Your task to perform on an android device: Open the calendar app, open the side menu, and click the "Day" option Image 0: 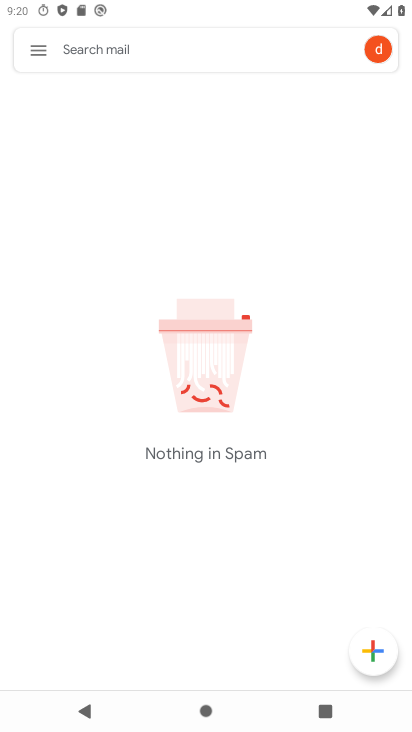
Step 0: press home button
Your task to perform on an android device: Open the calendar app, open the side menu, and click the "Day" option Image 1: 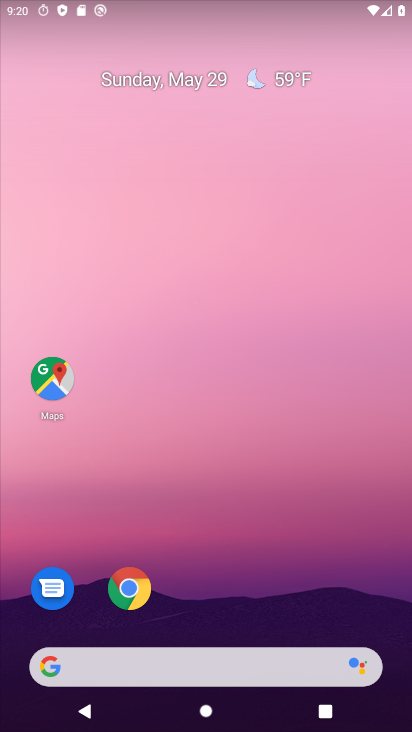
Step 1: drag from (207, 603) to (284, 0)
Your task to perform on an android device: Open the calendar app, open the side menu, and click the "Day" option Image 2: 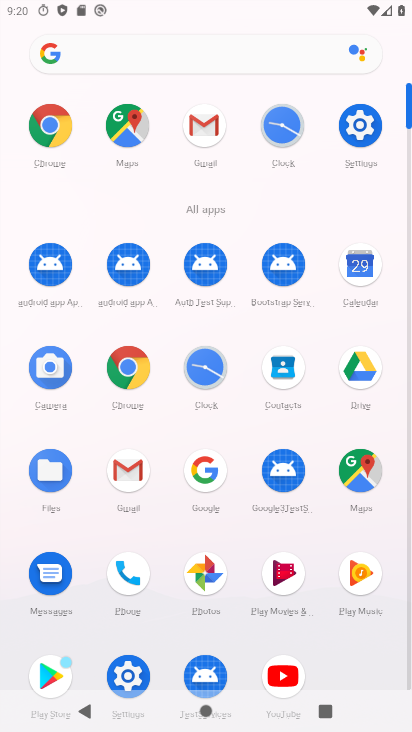
Step 2: click (369, 280)
Your task to perform on an android device: Open the calendar app, open the side menu, and click the "Day" option Image 3: 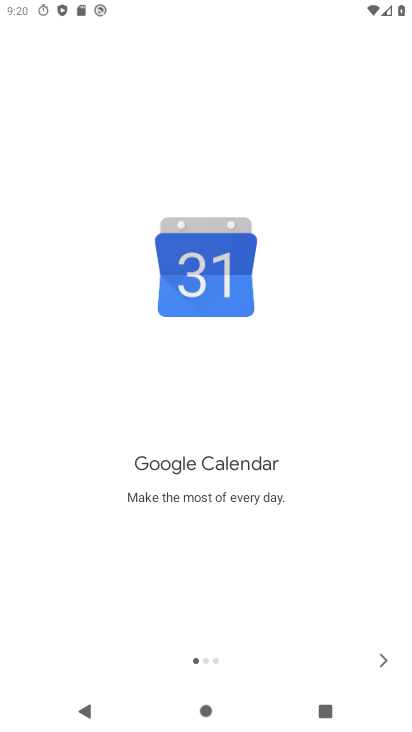
Step 3: click (380, 657)
Your task to perform on an android device: Open the calendar app, open the side menu, and click the "Day" option Image 4: 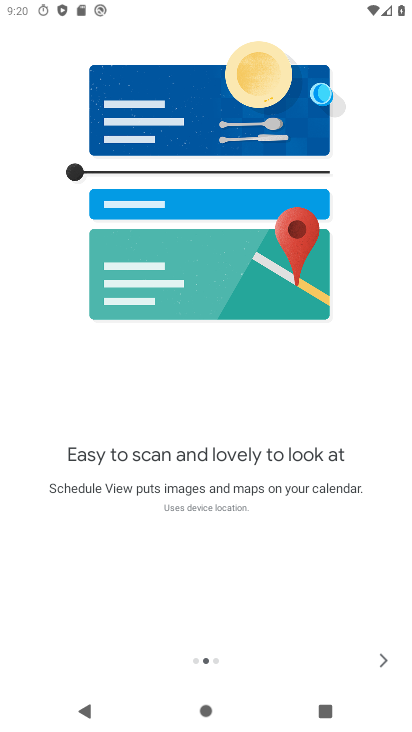
Step 4: click (380, 657)
Your task to perform on an android device: Open the calendar app, open the side menu, and click the "Day" option Image 5: 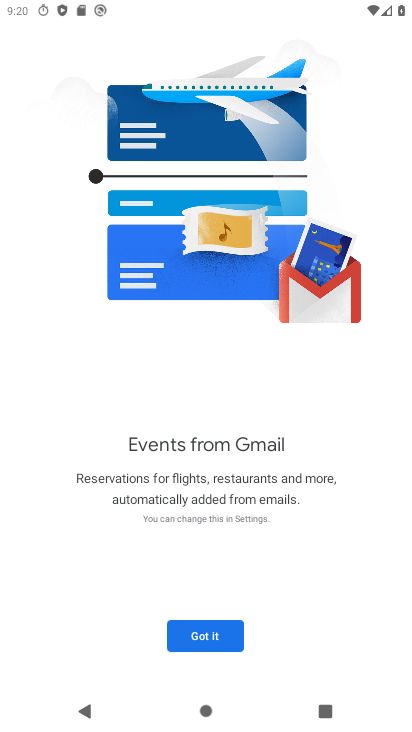
Step 5: click (220, 636)
Your task to perform on an android device: Open the calendar app, open the side menu, and click the "Day" option Image 6: 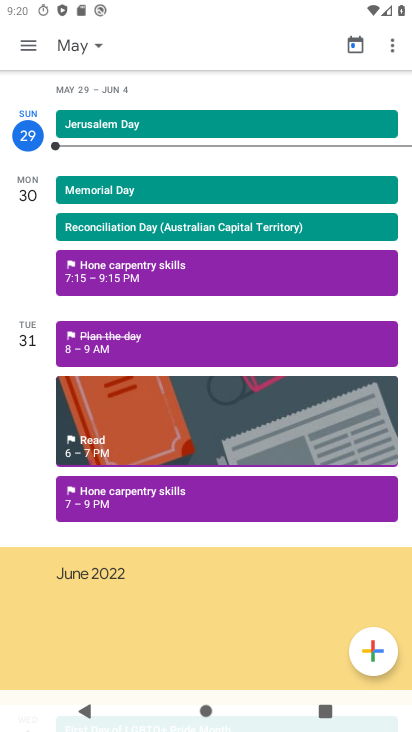
Step 6: click (26, 51)
Your task to perform on an android device: Open the calendar app, open the side menu, and click the "Day" option Image 7: 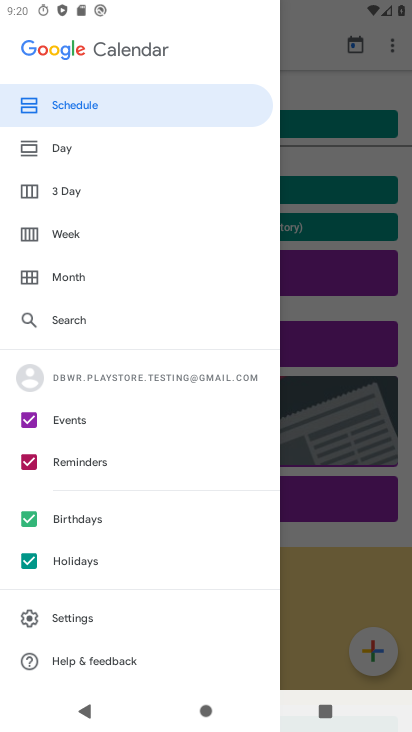
Step 7: click (76, 153)
Your task to perform on an android device: Open the calendar app, open the side menu, and click the "Day" option Image 8: 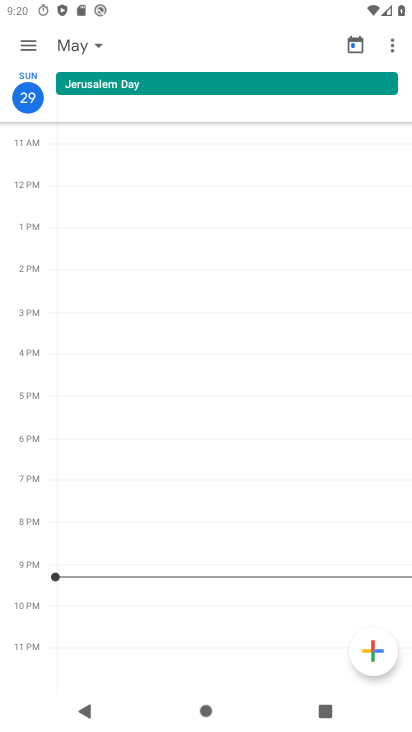
Step 8: task complete